Your task to perform on an android device: open wifi settings Image 0: 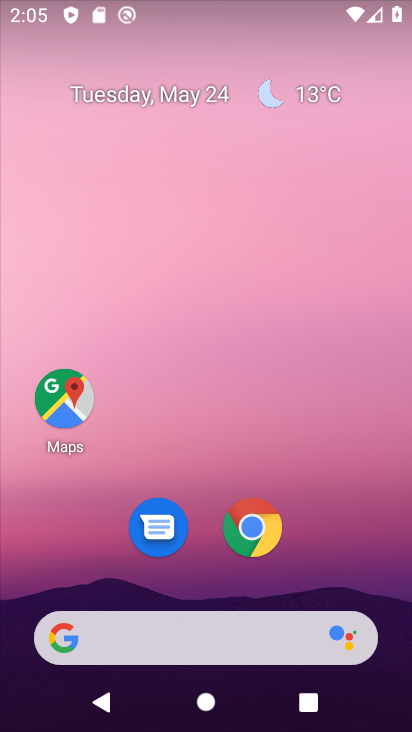
Step 0: drag from (222, 587) to (197, 161)
Your task to perform on an android device: open wifi settings Image 1: 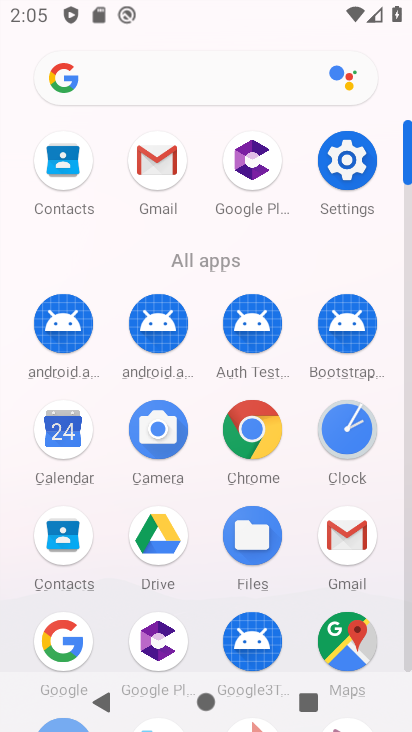
Step 1: click (354, 154)
Your task to perform on an android device: open wifi settings Image 2: 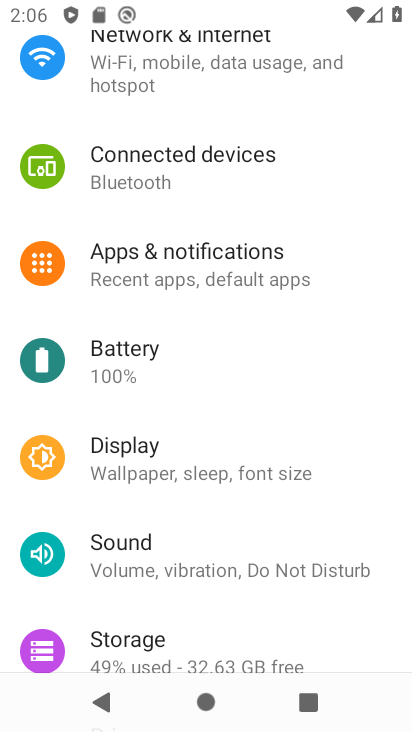
Step 2: drag from (145, 215) to (217, 612)
Your task to perform on an android device: open wifi settings Image 3: 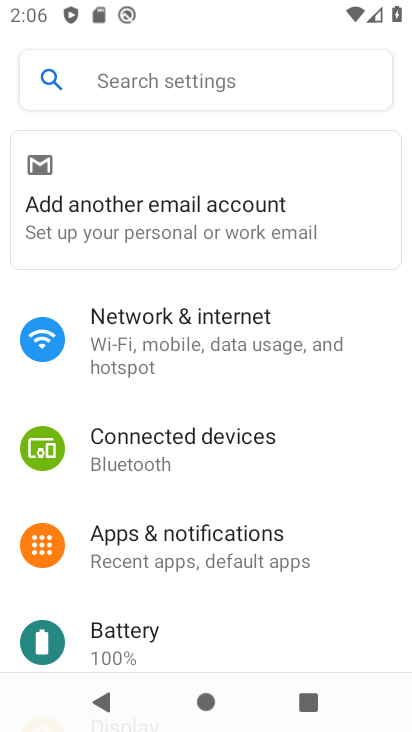
Step 3: click (212, 326)
Your task to perform on an android device: open wifi settings Image 4: 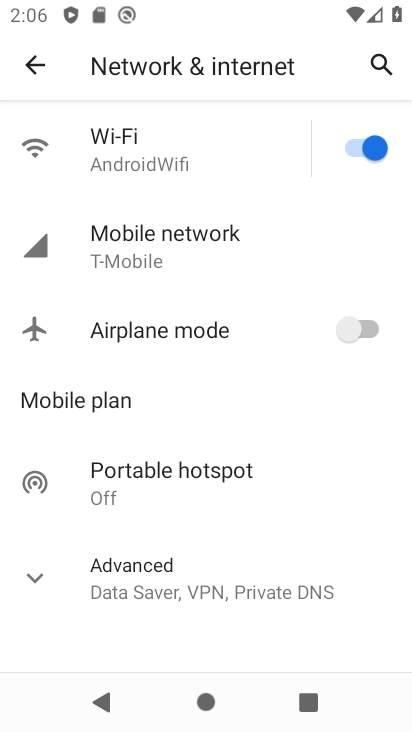
Step 4: click (64, 164)
Your task to perform on an android device: open wifi settings Image 5: 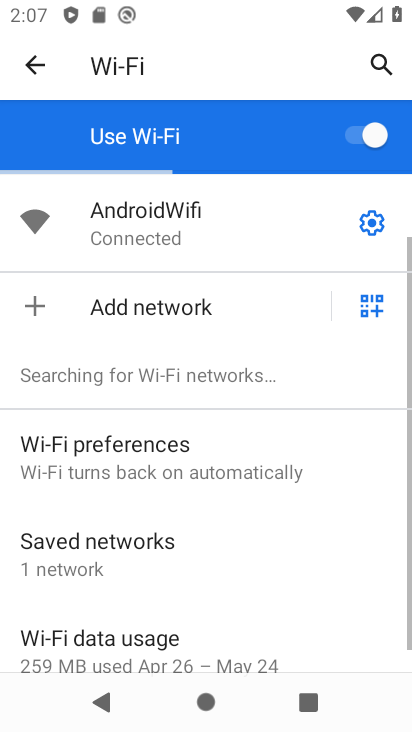
Step 5: task complete